Your task to perform on an android device: Go to calendar. Show me events next week Image 0: 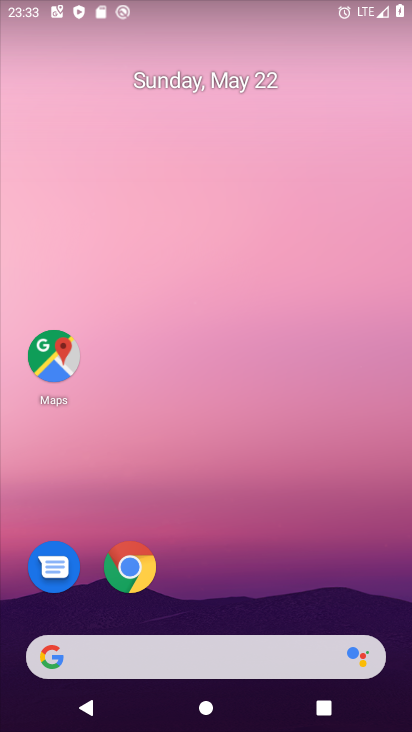
Step 0: drag from (228, 67) to (213, 16)
Your task to perform on an android device: Go to calendar. Show me events next week Image 1: 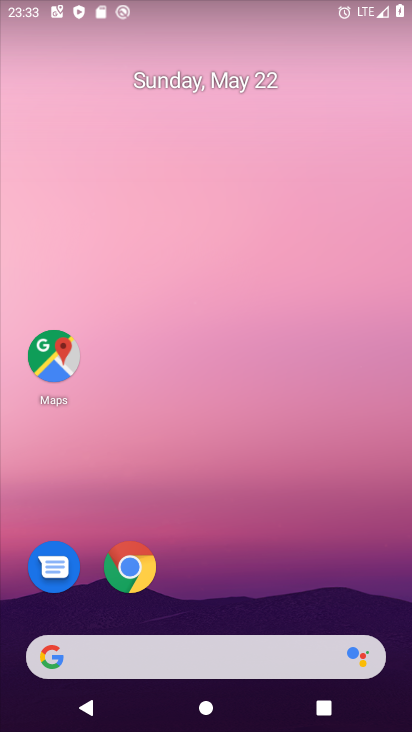
Step 1: drag from (244, 576) to (221, 24)
Your task to perform on an android device: Go to calendar. Show me events next week Image 2: 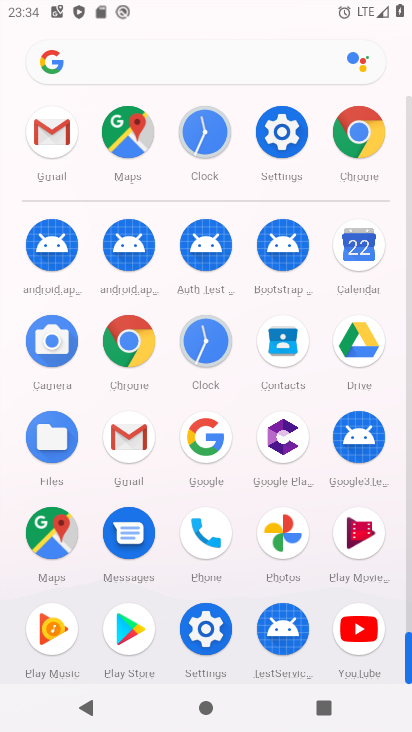
Step 2: click (358, 249)
Your task to perform on an android device: Go to calendar. Show me events next week Image 3: 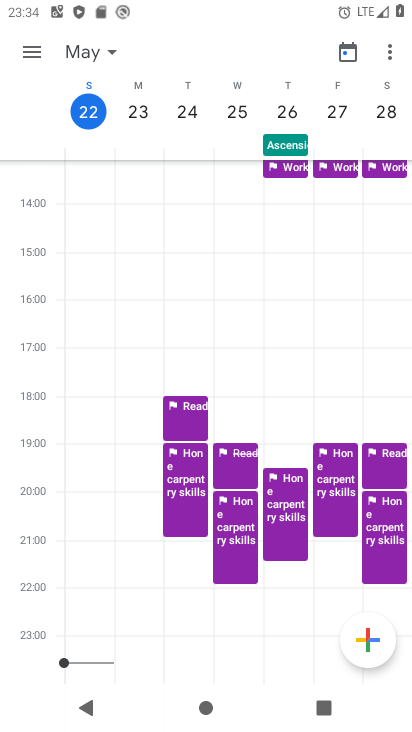
Step 3: click (27, 49)
Your task to perform on an android device: Go to calendar. Show me events next week Image 4: 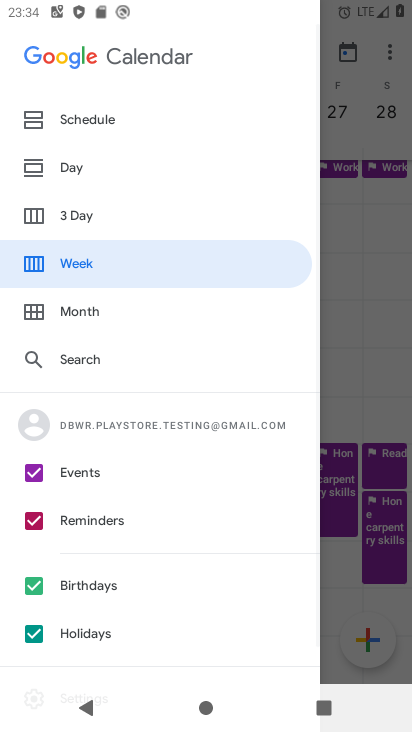
Step 4: click (134, 264)
Your task to perform on an android device: Go to calendar. Show me events next week Image 5: 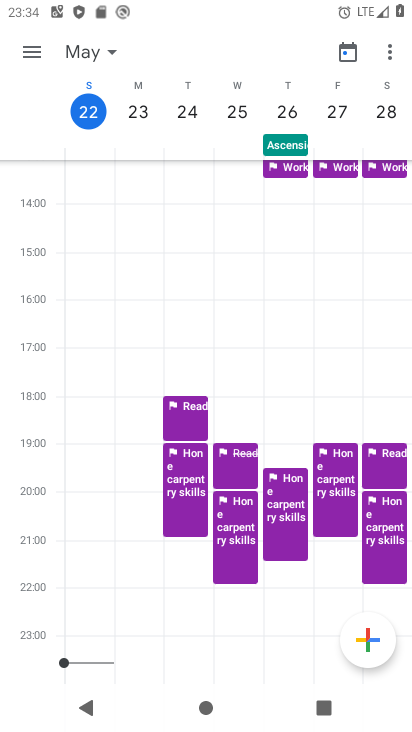
Step 5: task complete